Your task to perform on an android device: Open internet settings Image 0: 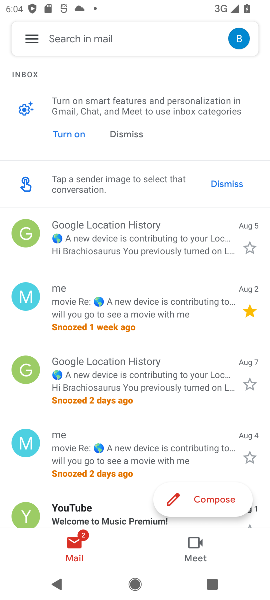
Step 0: press home button
Your task to perform on an android device: Open internet settings Image 1: 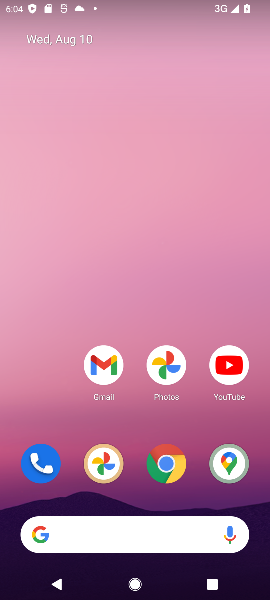
Step 1: drag from (143, 497) to (48, 68)
Your task to perform on an android device: Open internet settings Image 2: 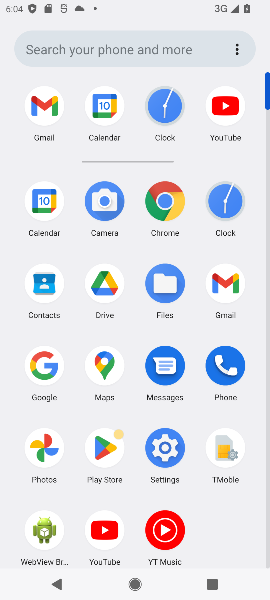
Step 2: click (158, 455)
Your task to perform on an android device: Open internet settings Image 3: 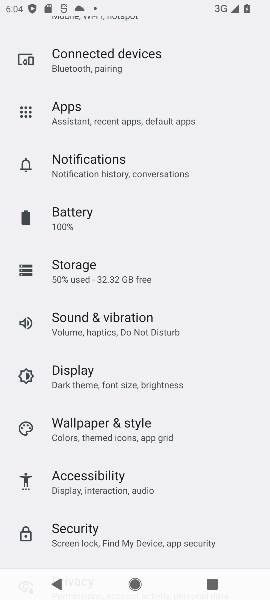
Step 3: drag from (158, 217) to (174, 563)
Your task to perform on an android device: Open internet settings Image 4: 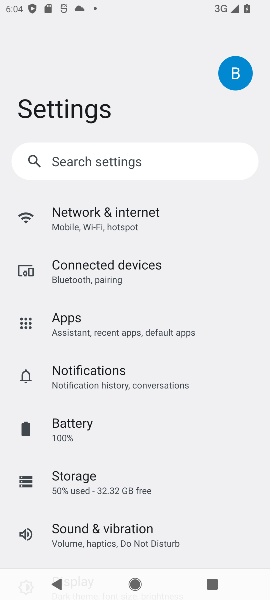
Step 4: click (106, 204)
Your task to perform on an android device: Open internet settings Image 5: 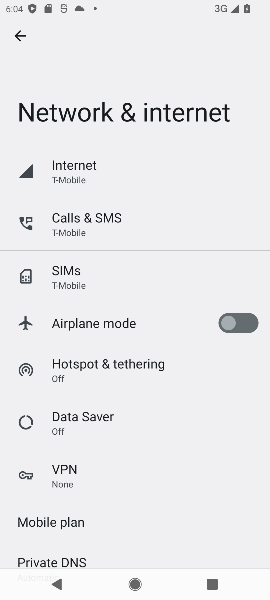
Step 5: task complete